Your task to perform on an android device: search for starred emails in the gmail app Image 0: 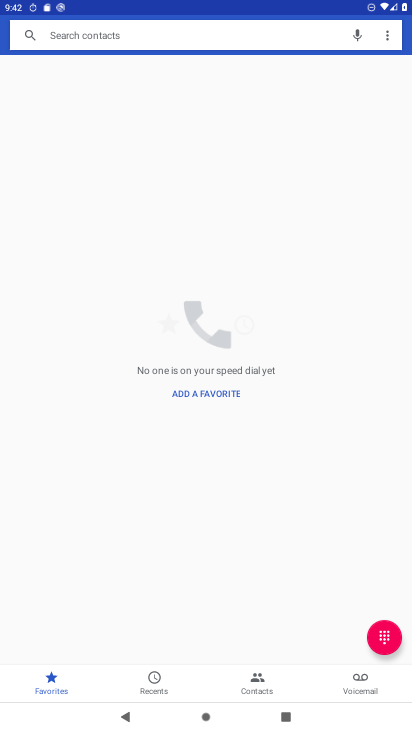
Step 0: press home button
Your task to perform on an android device: search for starred emails in the gmail app Image 1: 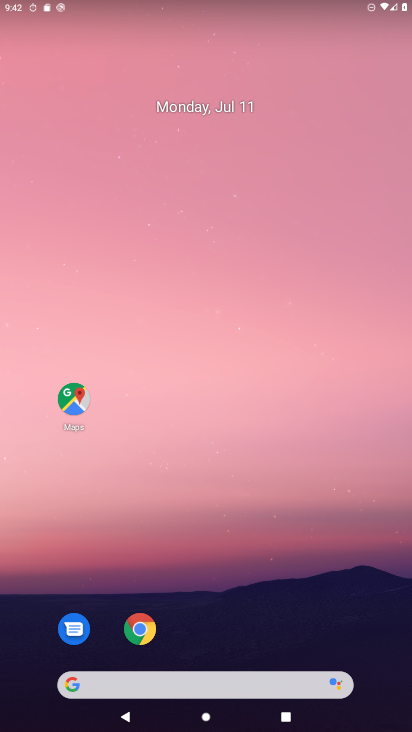
Step 1: drag from (233, 638) to (171, 243)
Your task to perform on an android device: search for starred emails in the gmail app Image 2: 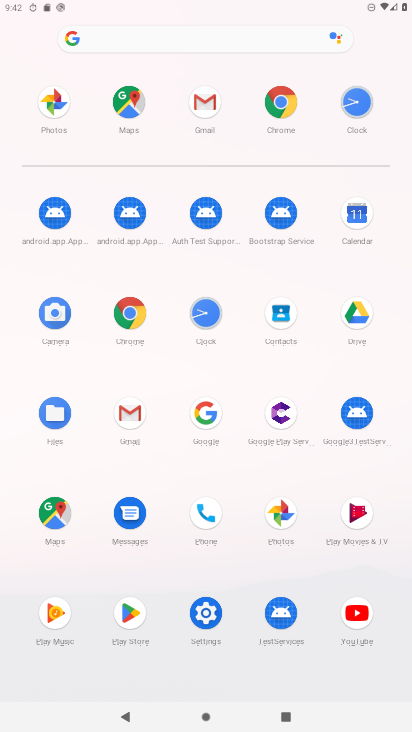
Step 2: click (206, 106)
Your task to perform on an android device: search for starred emails in the gmail app Image 3: 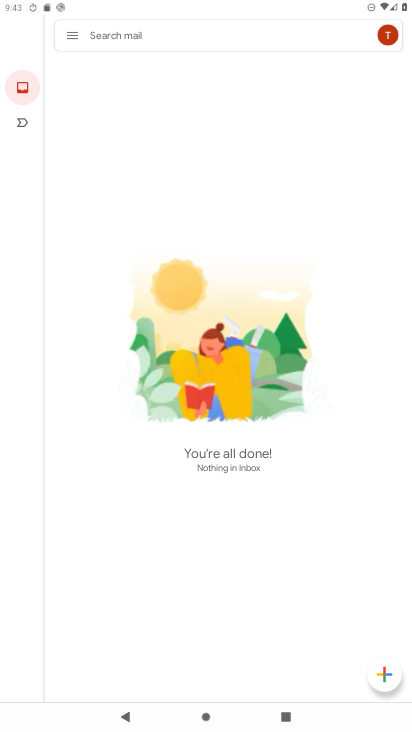
Step 3: click (72, 30)
Your task to perform on an android device: search for starred emails in the gmail app Image 4: 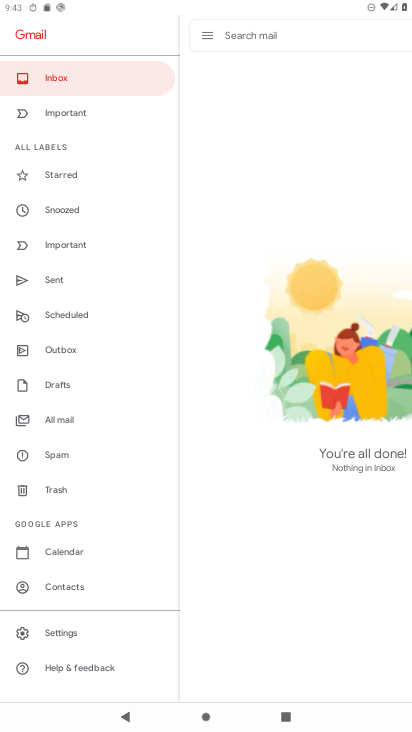
Step 4: click (68, 183)
Your task to perform on an android device: search for starred emails in the gmail app Image 5: 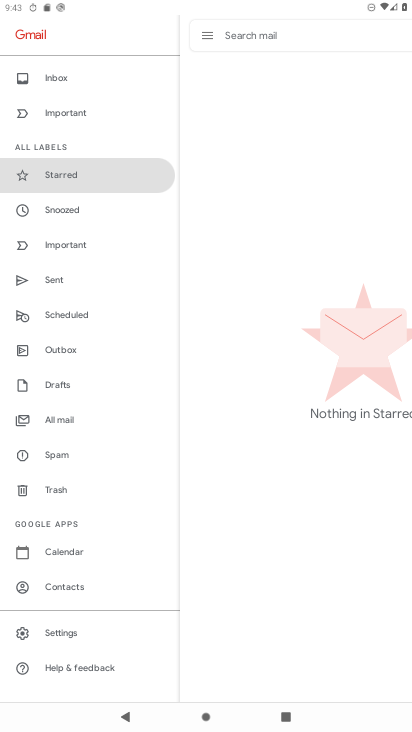
Step 5: task complete